Your task to perform on an android device: set an alarm Image 0: 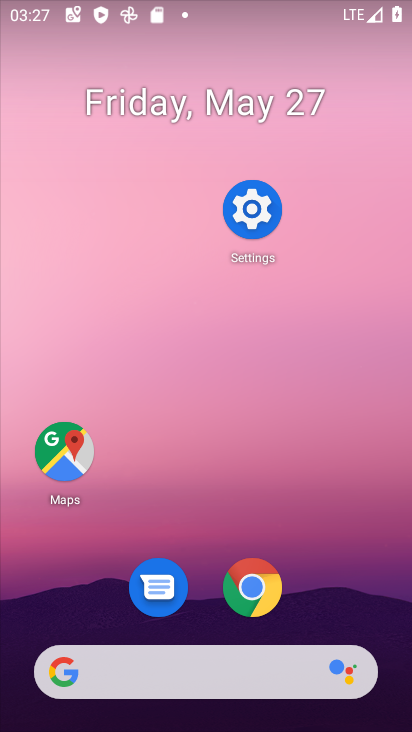
Step 0: press home button
Your task to perform on an android device: set an alarm Image 1: 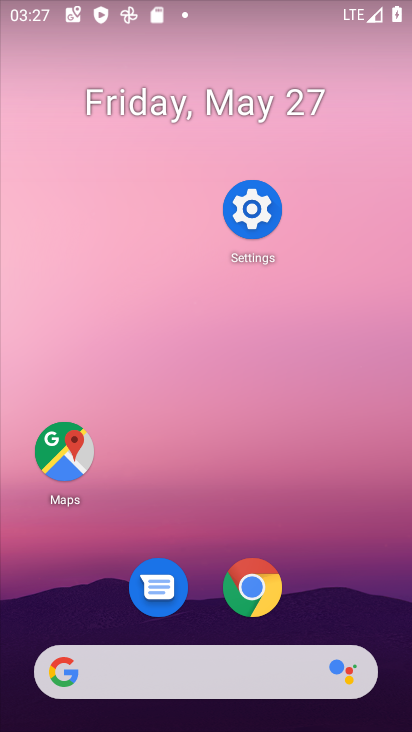
Step 1: drag from (347, 568) to (410, 53)
Your task to perform on an android device: set an alarm Image 2: 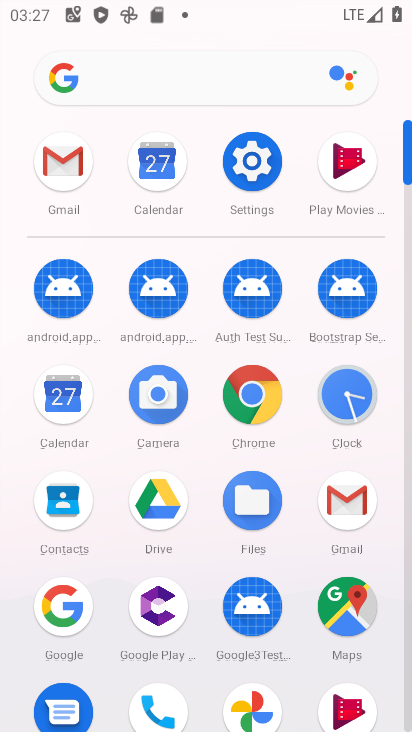
Step 2: click (363, 397)
Your task to perform on an android device: set an alarm Image 3: 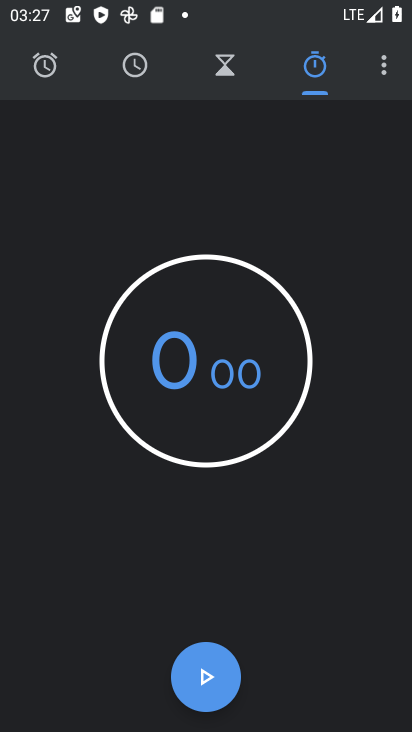
Step 3: click (53, 66)
Your task to perform on an android device: set an alarm Image 4: 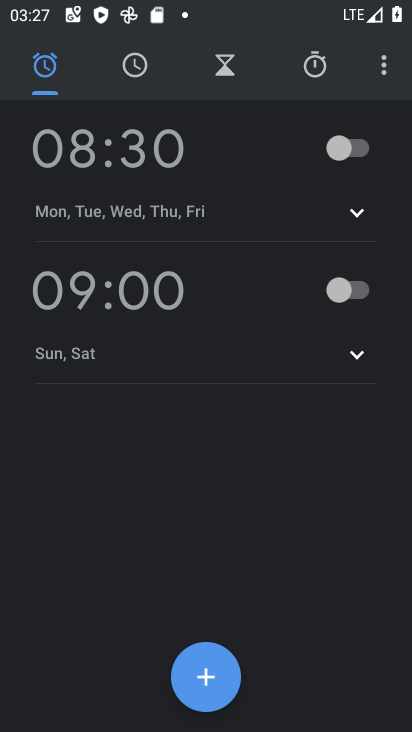
Step 4: click (223, 169)
Your task to perform on an android device: set an alarm Image 5: 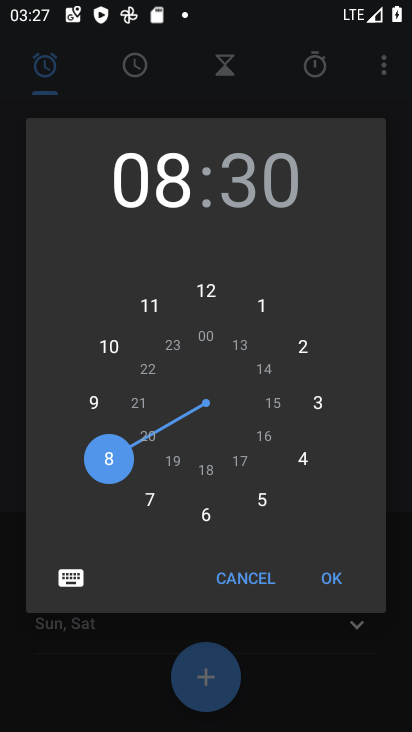
Step 5: click (276, 410)
Your task to perform on an android device: set an alarm Image 6: 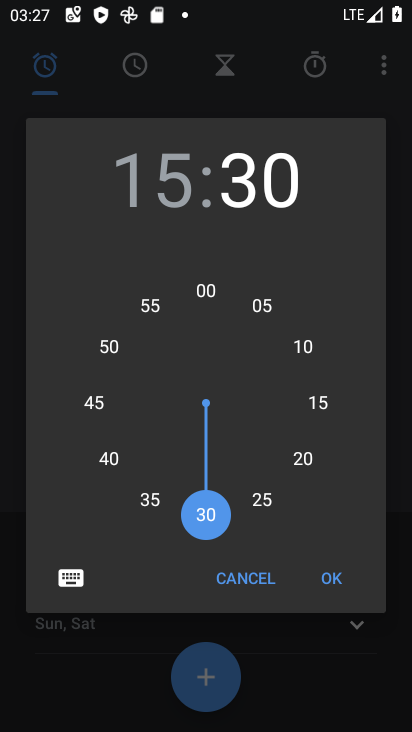
Step 6: click (341, 581)
Your task to perform on an android device: set an alarm Image 7: 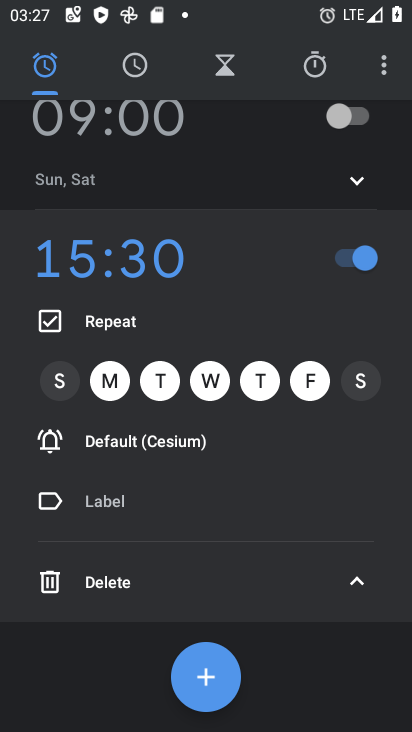
Step 7: task complete